Your task to perform on an android device: turn off airplane mode Image 0: 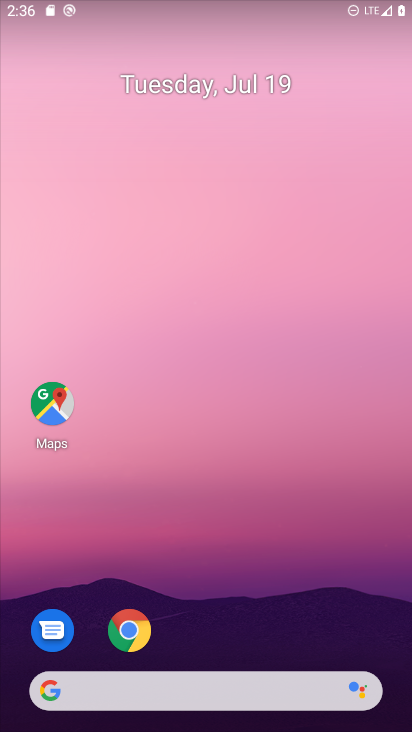
Step 0: drag from (359, 616) to (346, 240)
Your task to perform on an android device: turn off airplane mode Image 1: 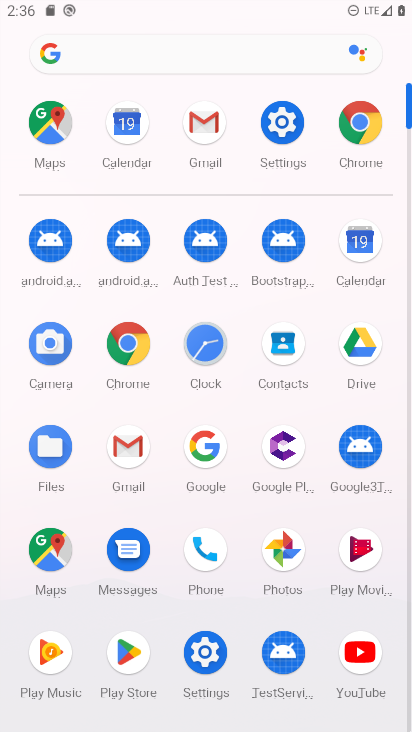
Step 1: click (205, 650)
Your task to perform on an android device: turn off airplane mode Image 2: 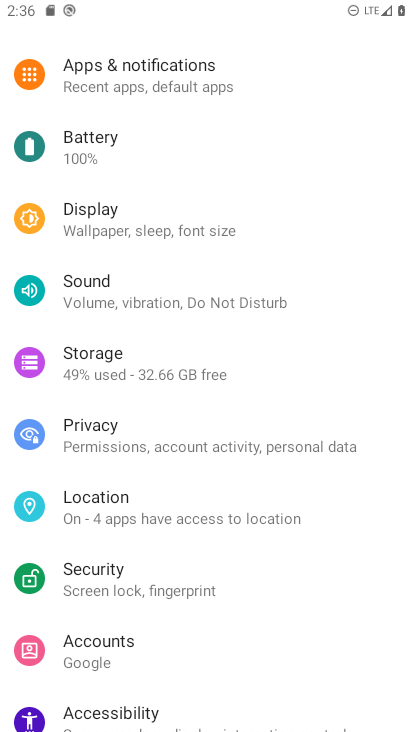
Step 2: drag from (267, 176) to (284, 412)
Your task to perform on an android device: turn off airplane mode Image 3: 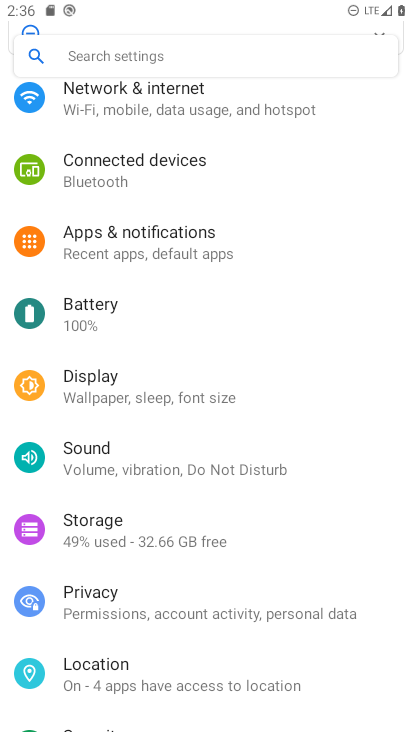
Step 3: click (144, 95)
Your task to perform on an android device: turn off airplane mode Image 4: 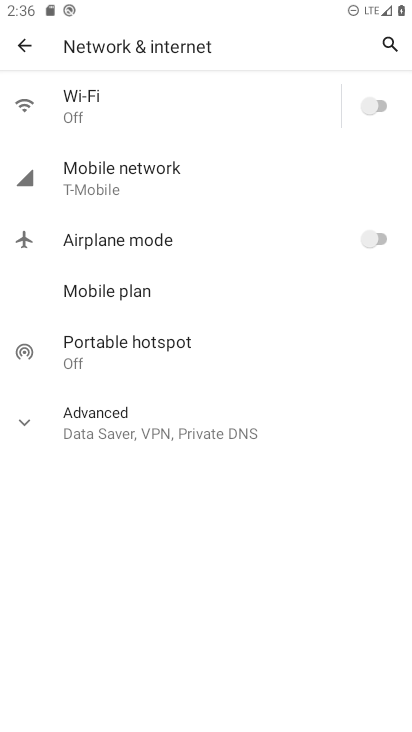
Step 4: task complete